Your task to perform on an android device: turn on javascript in the chrome app Image 0: 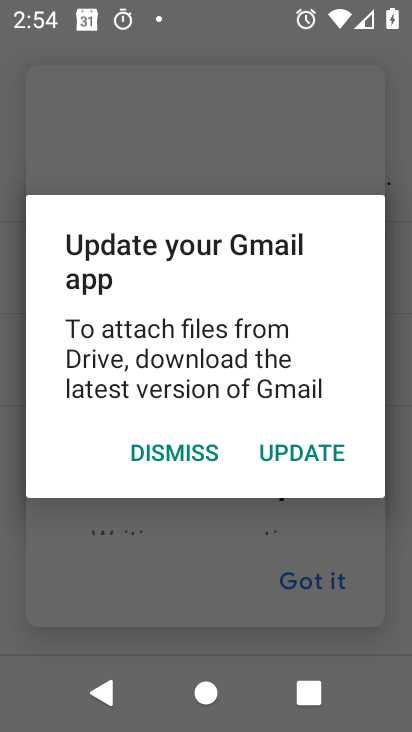
Step 0: press home button
Your task to perform on an android device: turn on javascript in the chrome app Image 1: 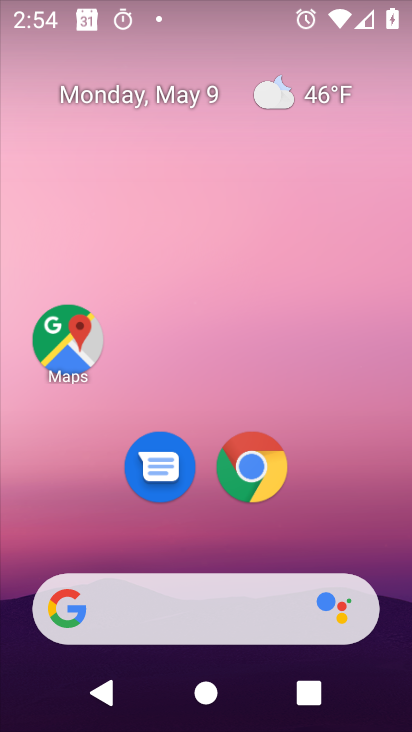
Step 1: click (259, 474)
Your task to perform on an android device: turn on javascript in the chrome app Image 2: 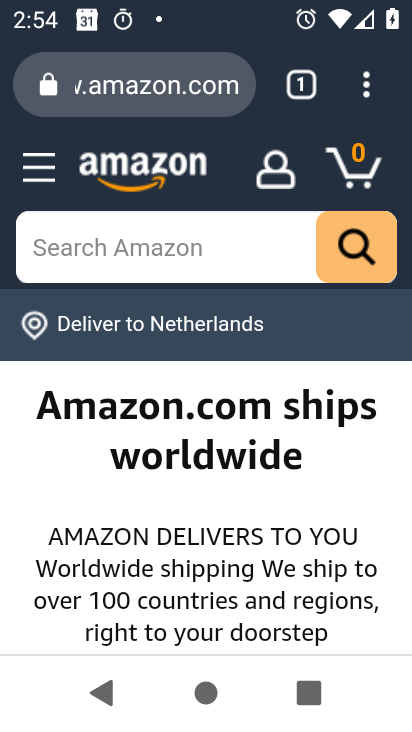
Step 2: click (370, 89)
Your task to perform on an android device: turn on javascript in the chrome app Image 3: 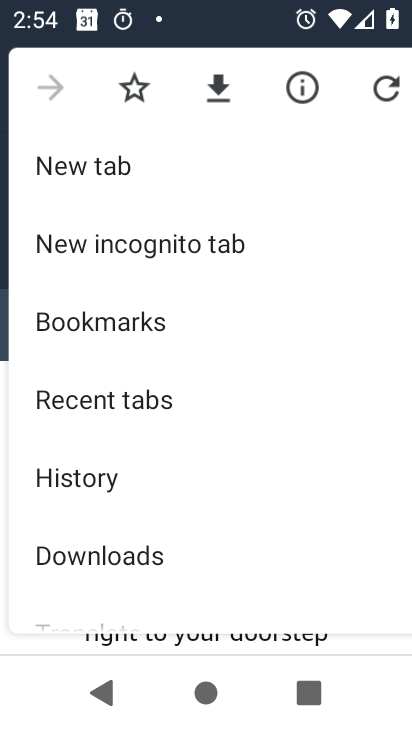
Step 3: drag from (275, 534) to (253, 138)
Your task to perform on an android device: turn on javascript in the chrome app Image 4: 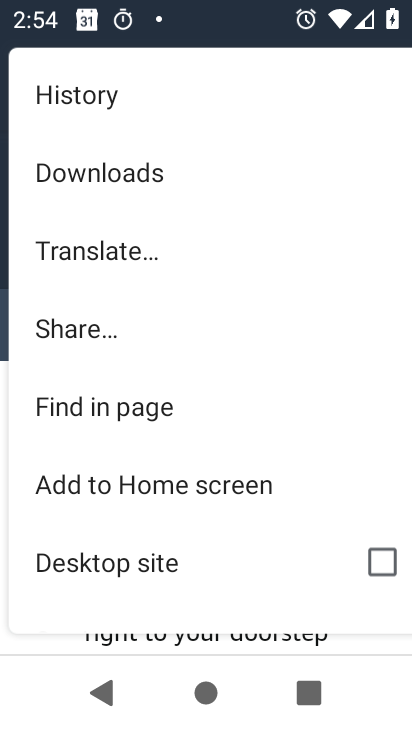
Step 4: drag from (130, 583) to (175, 280)
Your task to perform on an android device: turn on javascript in the chrome app Image 5: 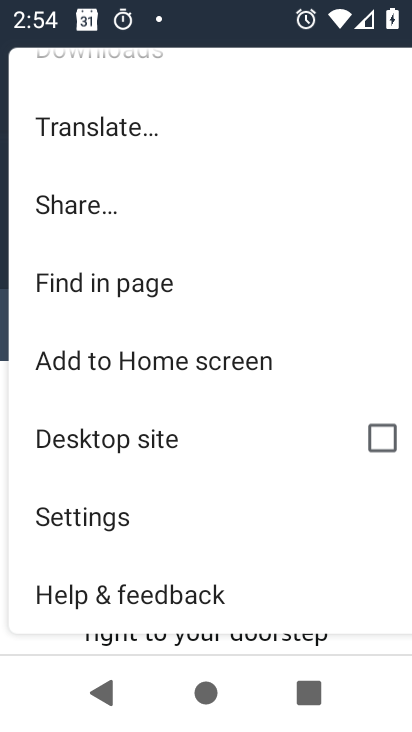
Step 5: click (110, 517)
Your task to perform on an android device: turn on javascript in the chrome app Image 6: 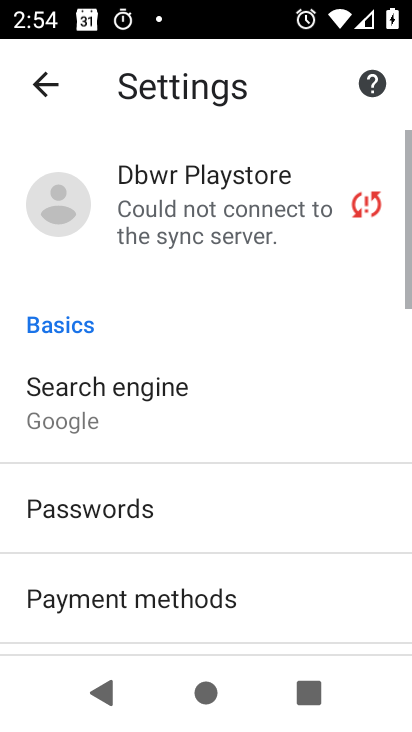
Step 6: drag from (280, 543) to (313, 105)
Your task to perform on an android device: turn on javascript in the chrome app Image 7: 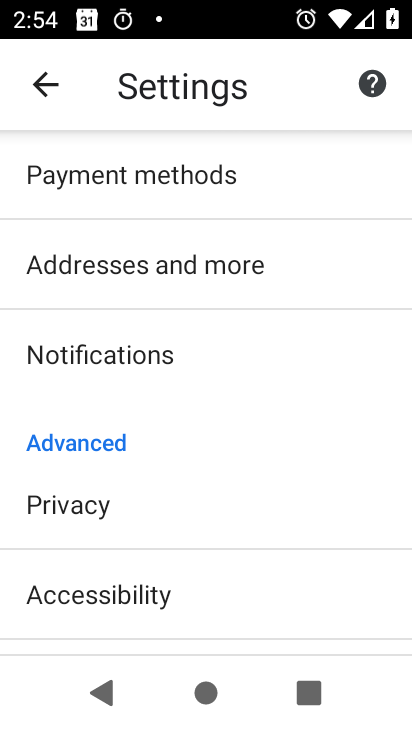
Step 7: drag from (229, 516) to (232, 164)
Your task to perform on an android device: turn on javascript in the chrome app Image 8: 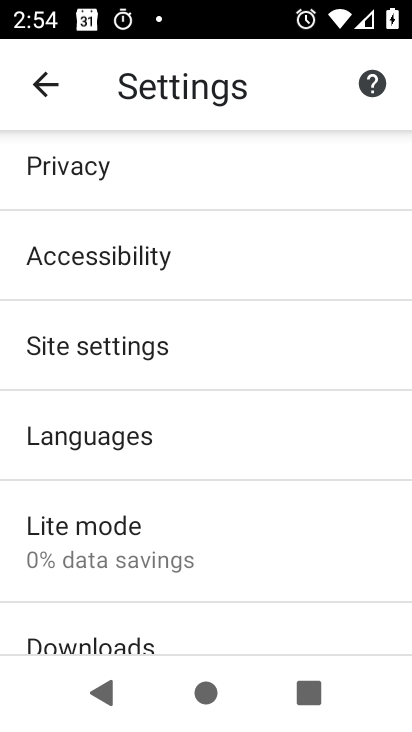
Step 8: click (114, 350)
Your task to perform on an android device: turn on javascript in the chrome app Image 9: 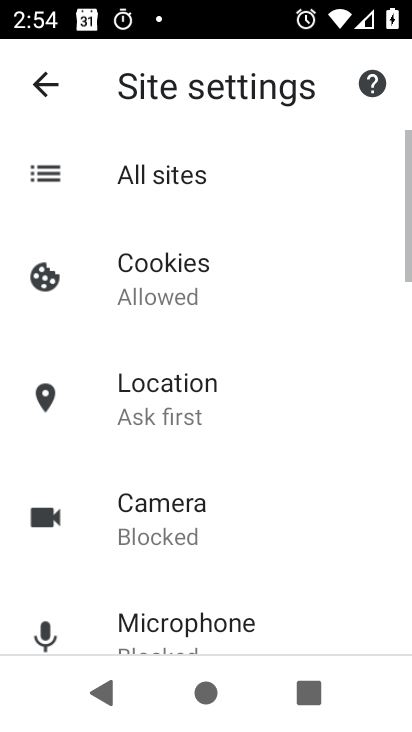
Step 9: drag from (242, 634) to (253, 281)
Your task to perform on an android device: turn on javascript in the chrome app Image 10: 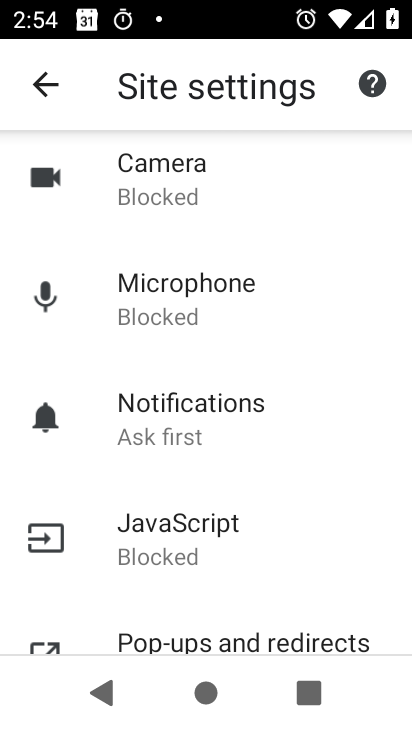
Step 10: click (164, 534)
Your task to perform on an android device: turn on javascript in the chrome app Image 11: 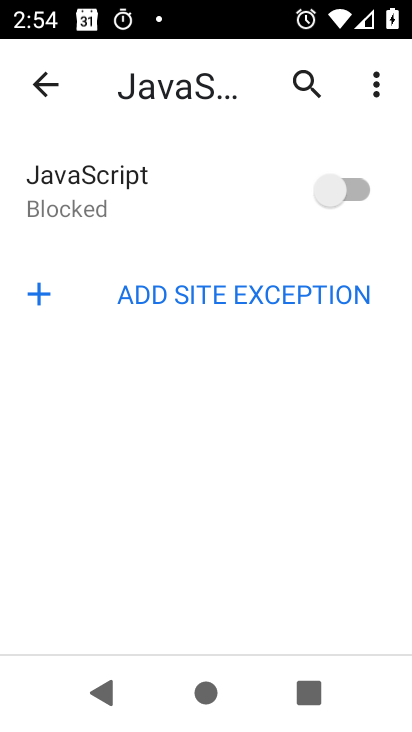
Step 11: click (307, 206)
Your task to perform on an android device: turn on javascript in the chrome app Image 12: 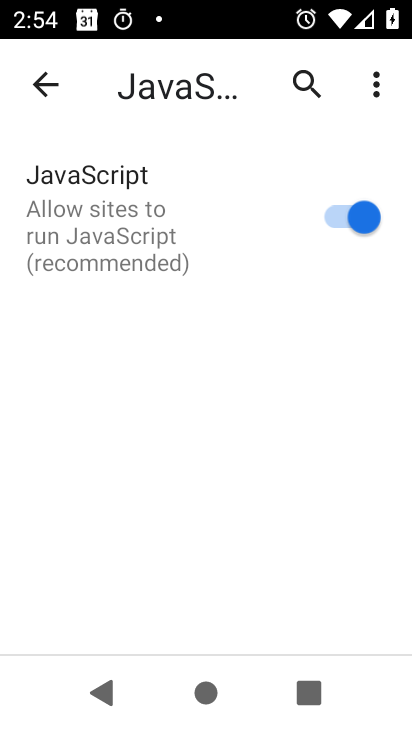
Step 12: task complete